Your task to perform on an android device: add a label to a message in the gmail app Image 0: 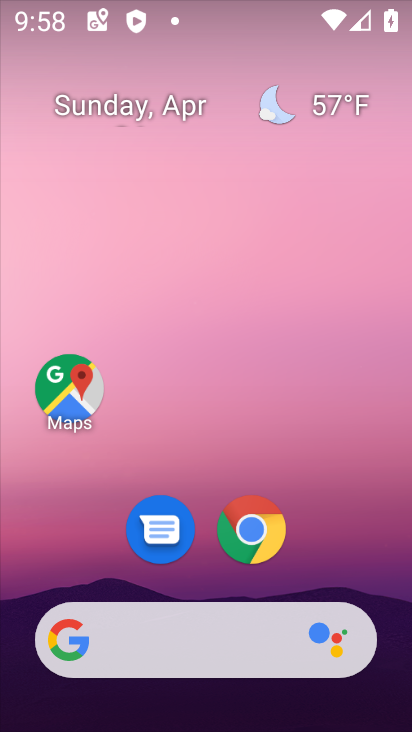
Step 0: drag from (333, 570) to (211, 53)
Your task to perform on an android device: add a label to a message in the gmail app Image 1: 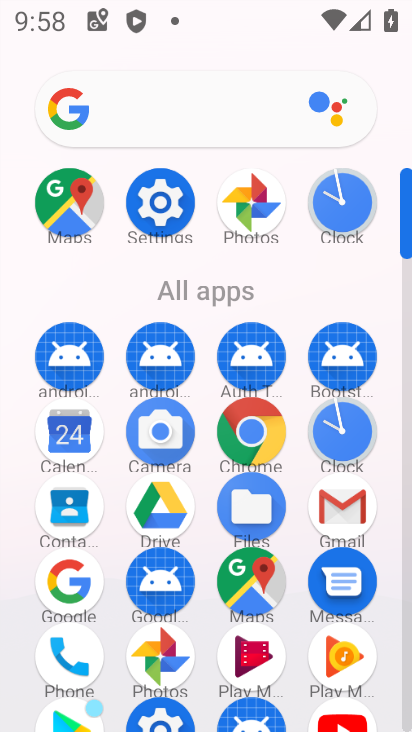
Step 1: click (347, 501)
Your task to perform on an android device: add a label to a message in the gmail app Image 2: 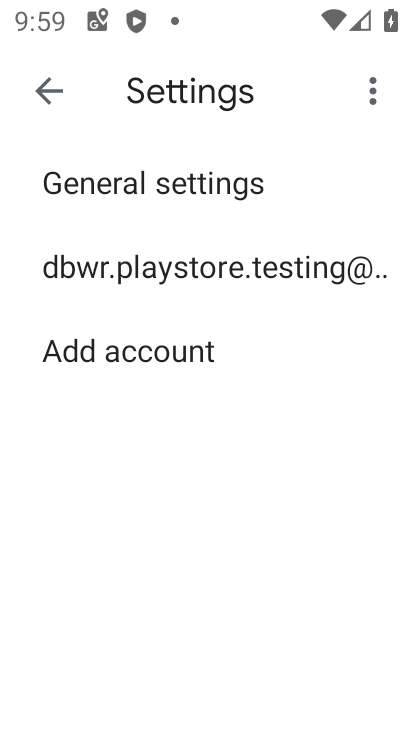
Step 2: click (212, 277)
Your task to perform on an android device: add a label to a message in the gmail app Image 3: 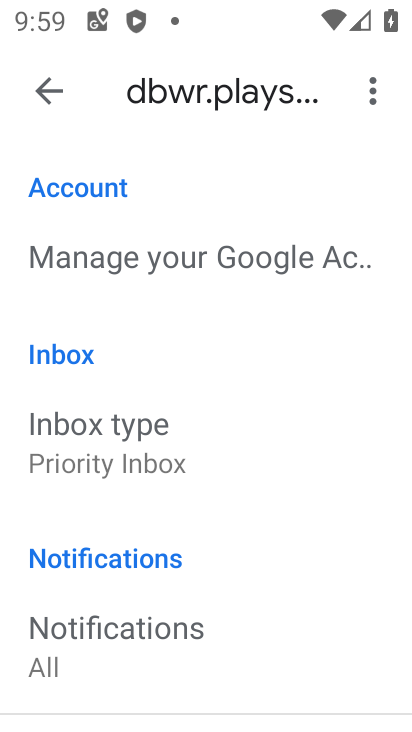
Step 3: click (36, 82)
Your task to perform on an android device: add a label to a message in the gmail app Image 4: 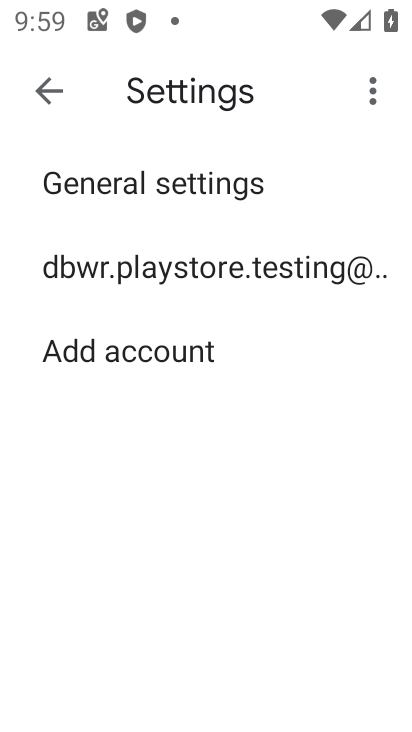
Step 4: click (54, 96)
Your task to perform on an android device: add a label to a message in the gmail app Image 5: 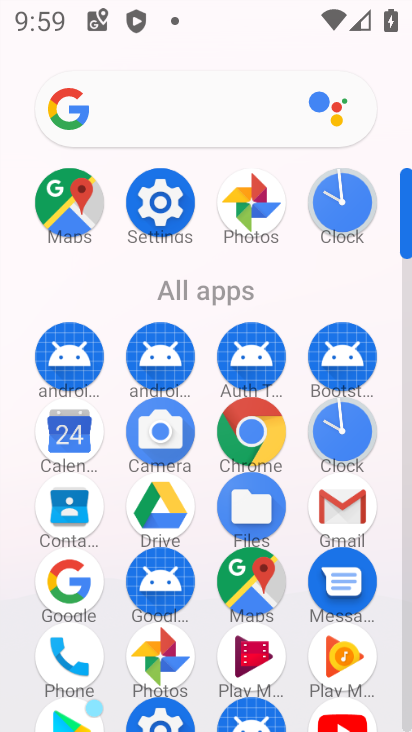
Step 5: click (348, 505)
Your task to perform on an android device: add a label to a message in the gmail app Image 6: 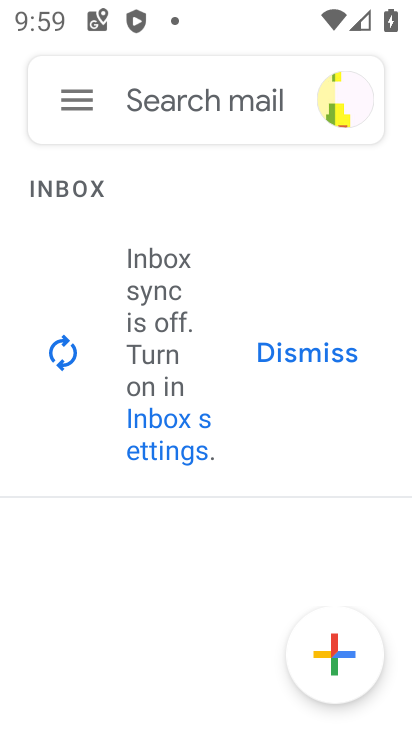
Step 6: click (77, 102)
Your task to perform on an android device: add a label to a message in the gmail app Image 7: 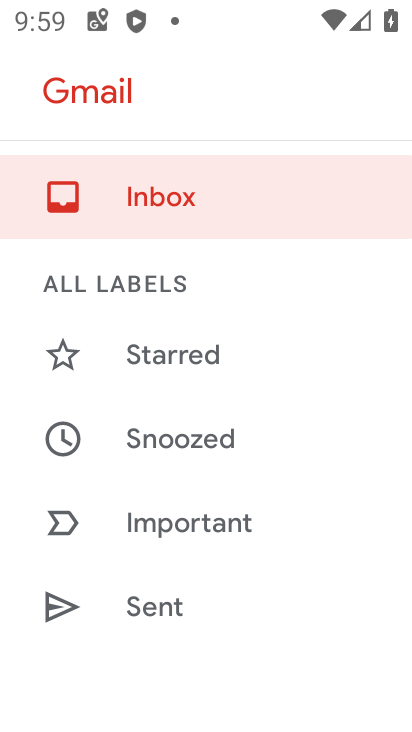
Step 7: click (193, 209)
Your task to perform on an android device: add a label to a message in the gmail app Image 8: 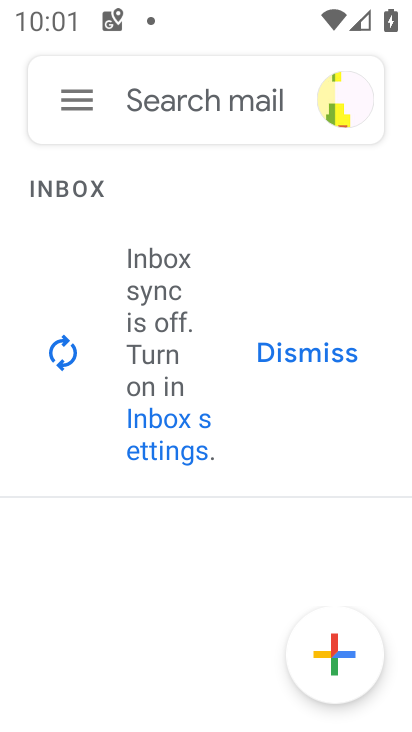
Step 8: task complete